Your task to perform on an android device: change the clock style Image 0: 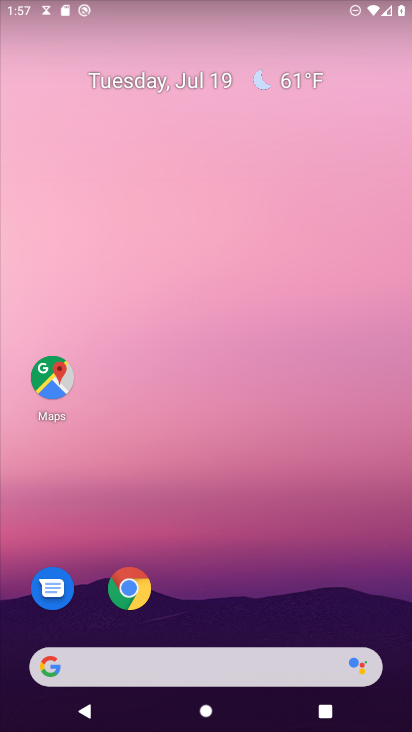
Step 0: press home button
Your task to perform on an android device: change the clock style Image 1: 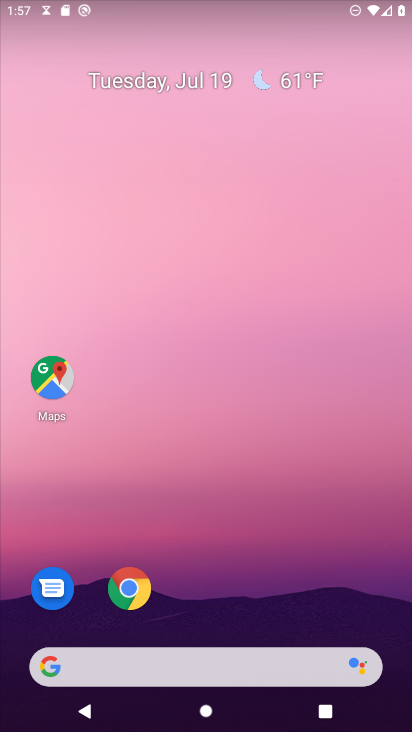
Step 1: drag from (275, 689) to (188, 205)
Your task to perform on an android device: change the clock style Image 2: 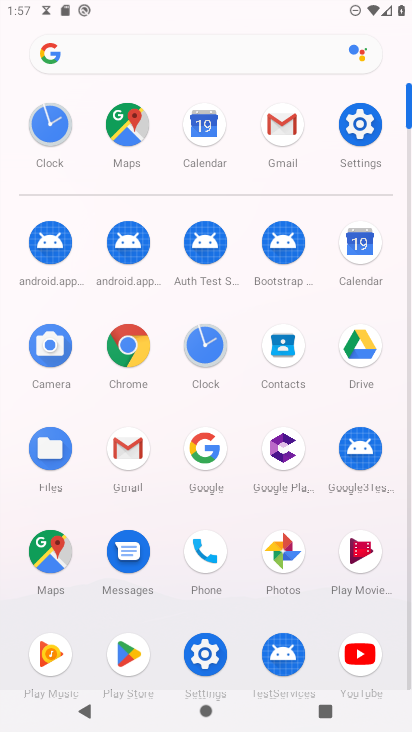
Step 2: click (206, 348)
Your task to perform on an android device: change the clock style Image 3: 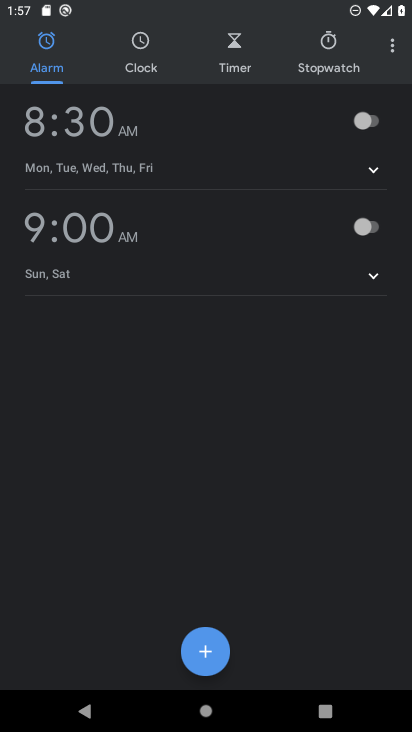
Step 3: click (387, 43)
Your task to perform on an android device: change the clock style Image 4: 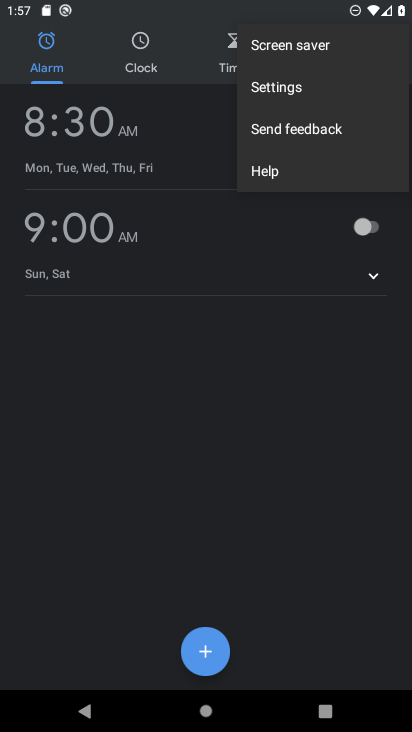
Step 4: click (283, 95)
Your task to perform on an android device: change the clock style Image 5: 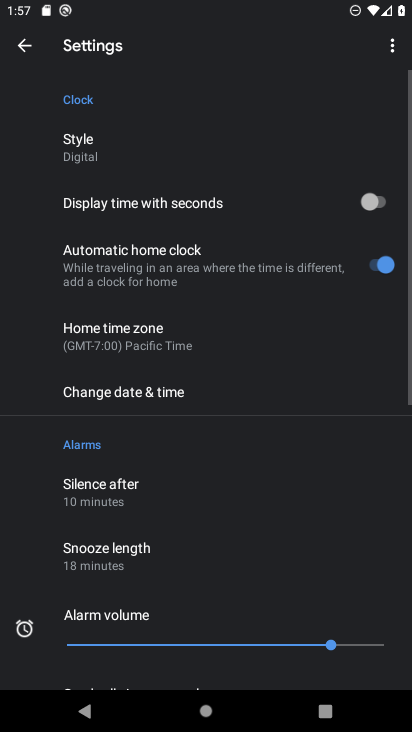
Step 5: click (134, 158)
Your task to perform on an android device: change the clock style Image 6: 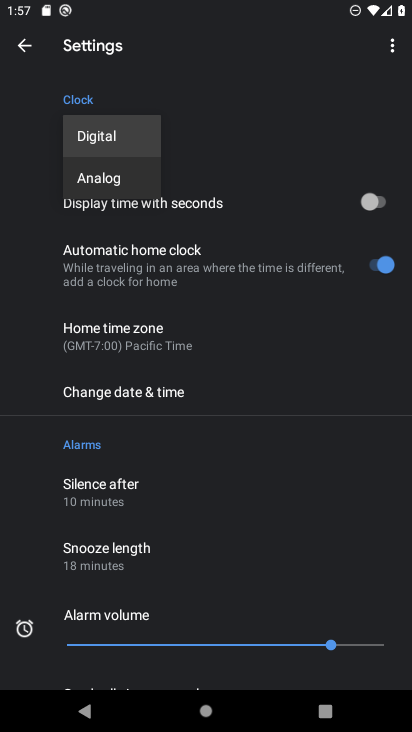
Step 6: click (100, 183)
Your task to perform on an android device: change the clock style Image 7: 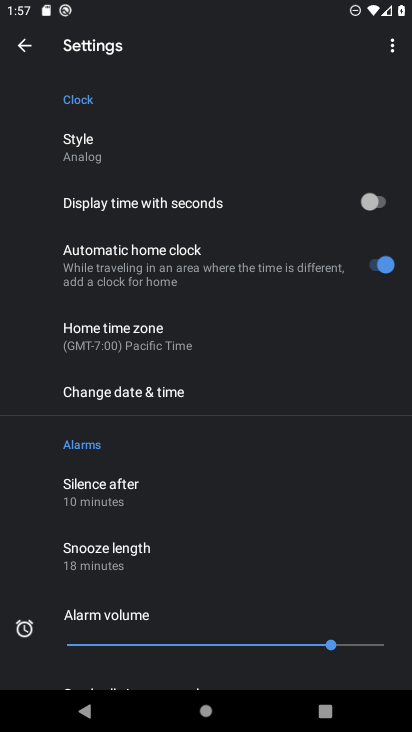
Step 7: task complete